Your task to perform on an android device: Search for razer blackwidow on walmart.com, select the first entry, add it to the cart, then select checkout. Image 0: 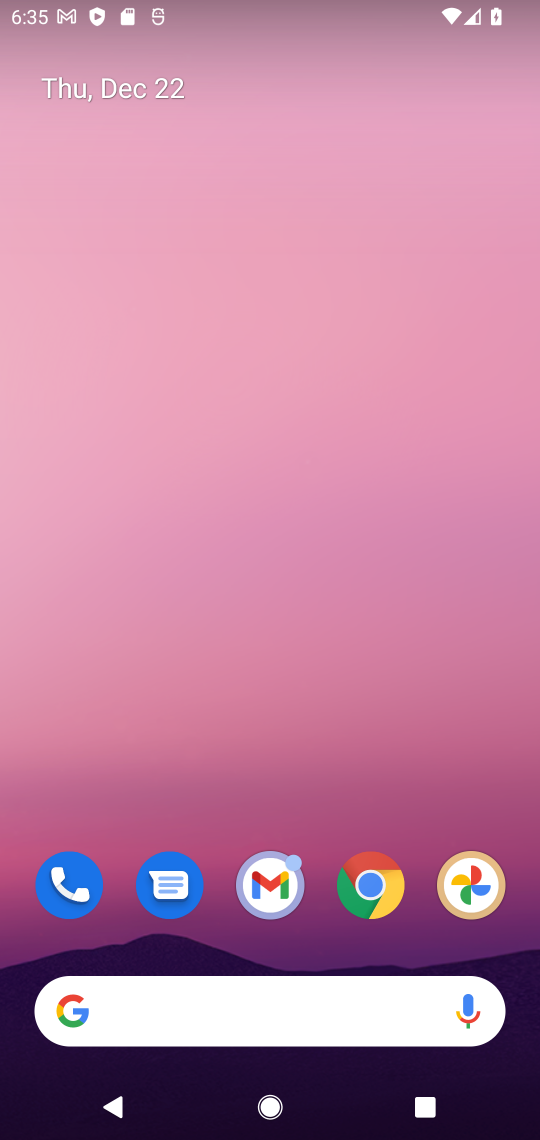
Step 0: click (371, 891)
Your task to perform on an android device: Search for razer blackwidow on walmart.com, select the first entry, add it to the cart, then select checkout. Image 1: 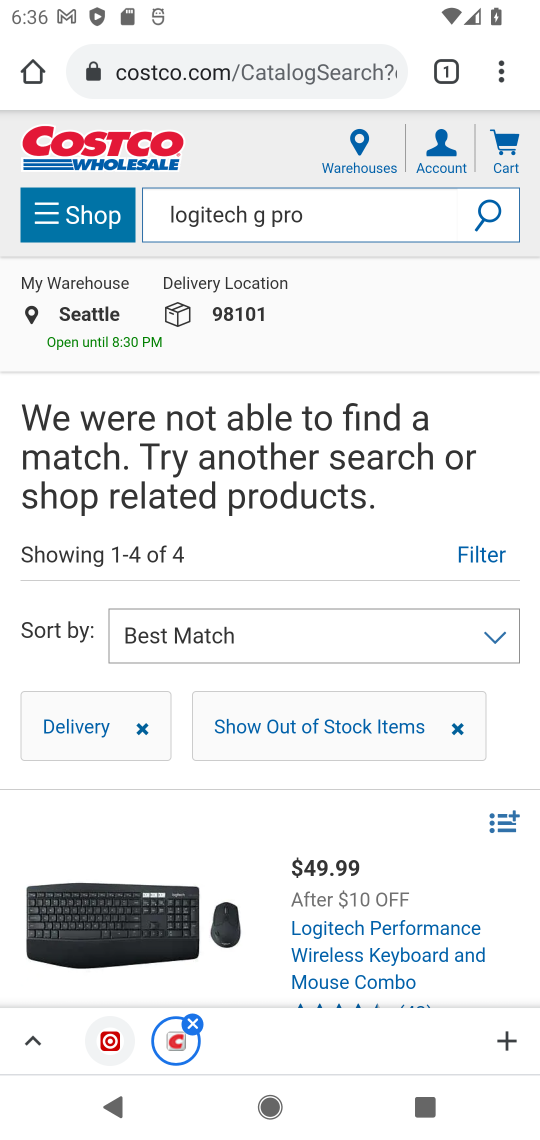
Step 1: click (188, 74)
Your task to perform on an android device: Search for razer blackwidow on walmart.com, select the first entry, add it to the cart, then select checkout. Image 2: 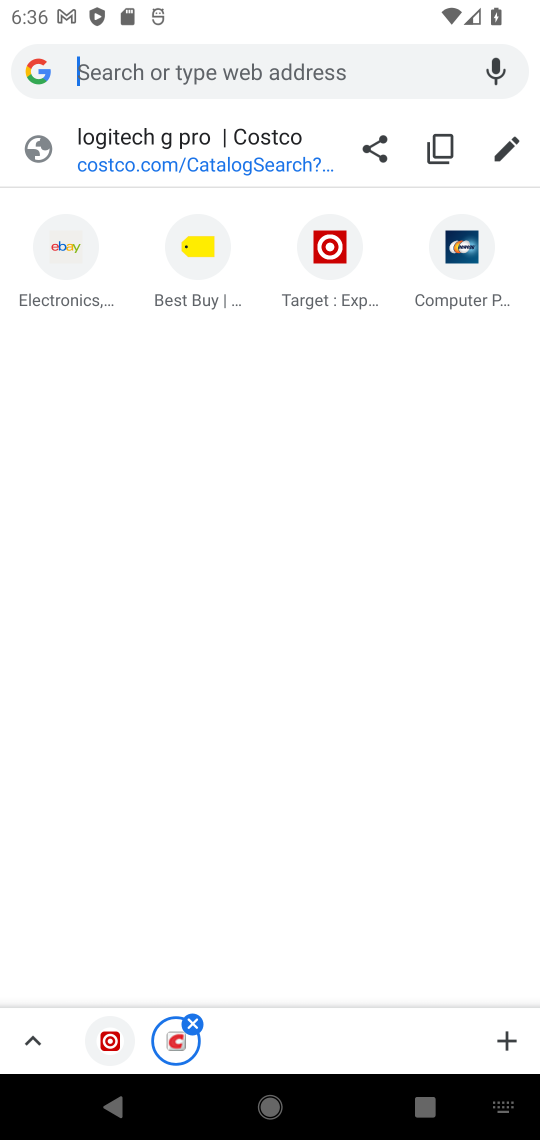
Step 2: type "walmart.com"
Your task to perform on an android device: Search for razer blackwidow on walmart.com, select the first entry, add it to the cart, then select checkout. Image 3: 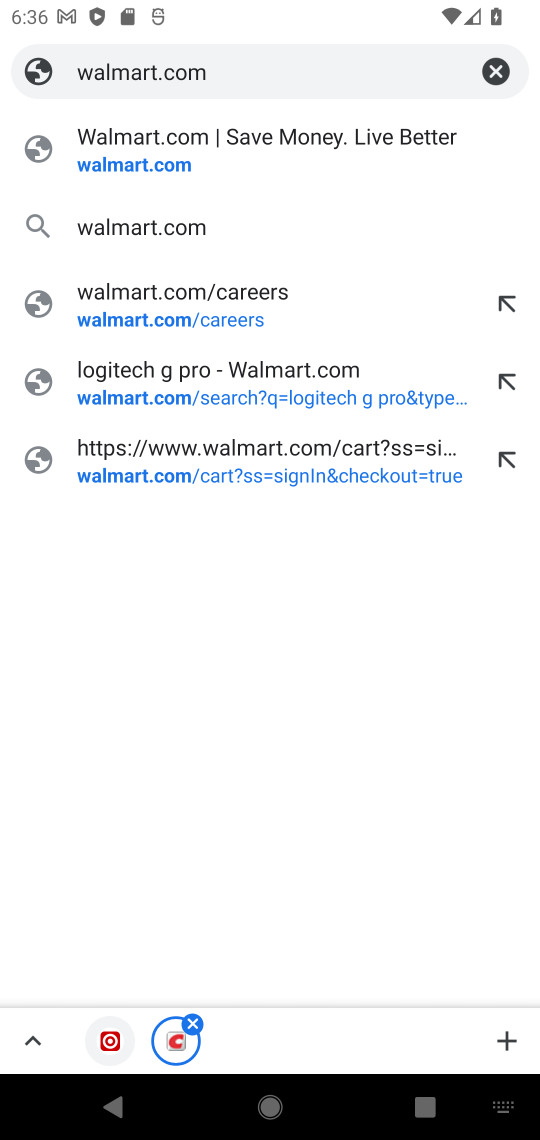
Step 3: click (150, 155)
Your task to perform on an android device: Search for razer blackwidow on walmart.com, select the first entry, add it to the cart, then select checkout. Image 4: 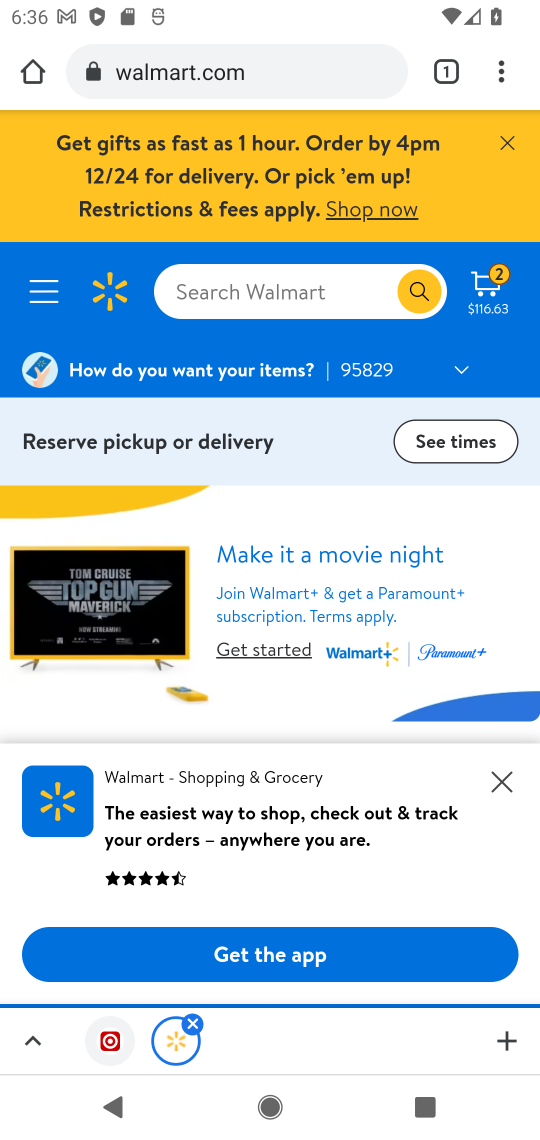
Step 4: click (228, 303)
Your task to perform on an android device: Search for razer blackwidow on walmart.com, select the first entry, add it to the cart, then select checkout. Image 5: 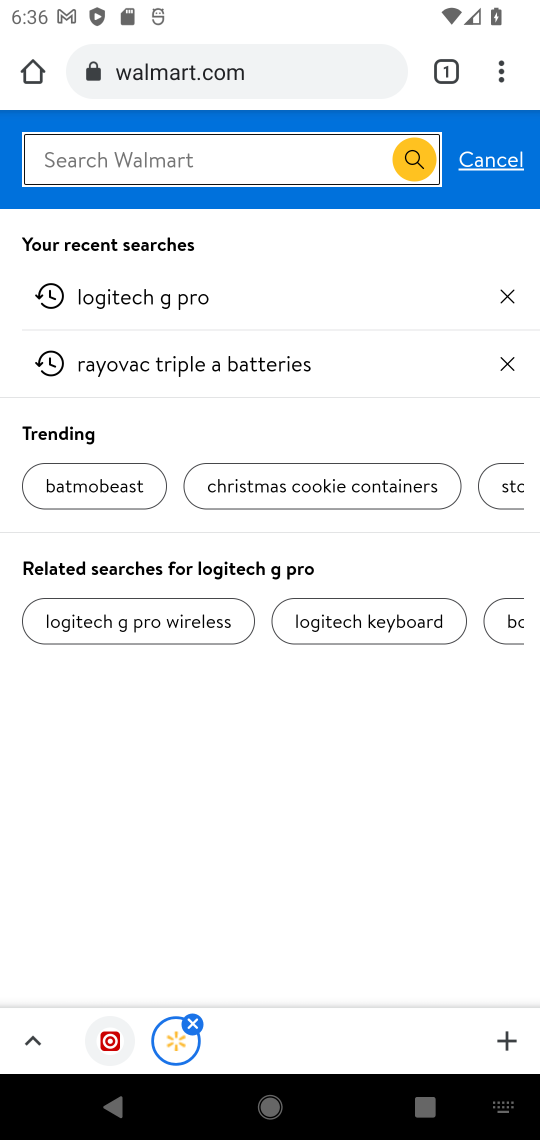
Step 5: type "razer blackwidow"
Your task to perform on an android device: Search for razer blackwidow on walmart.com, select the first entry, add it to the cart, then select checkout. Image 6: 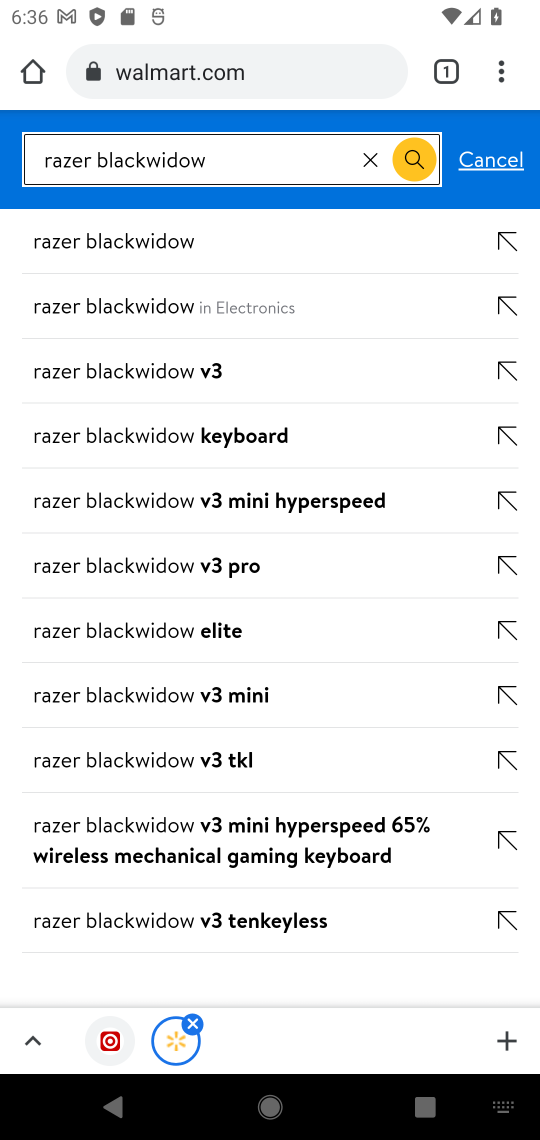
Step 6: click (140, 248)
Your task to perform on an android device: Search for razer blackwidow on walmart.com, select the first entry, add it to the cart, then select checkout. Image 7: 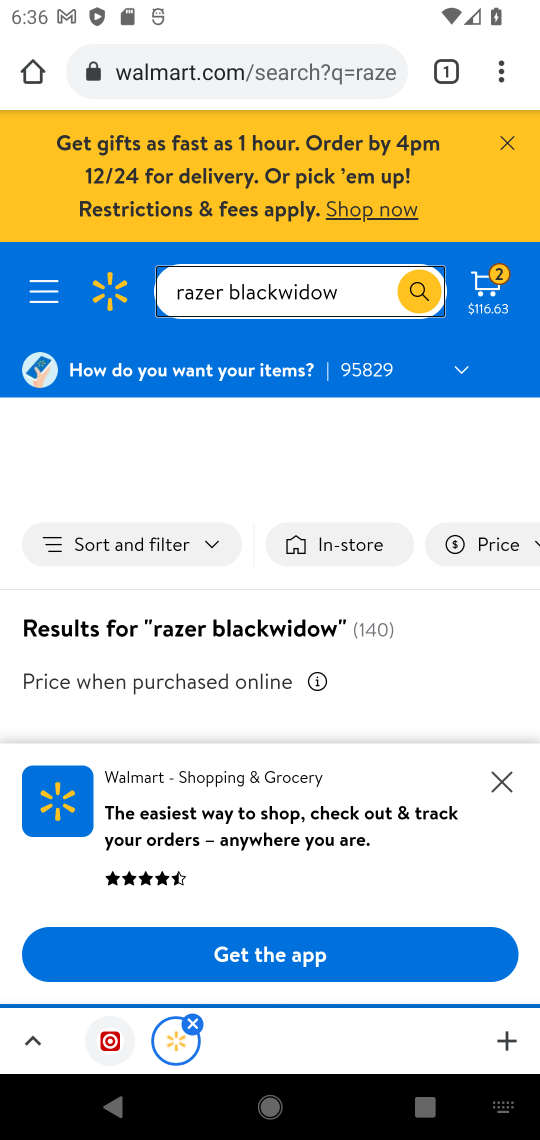
Step 7: click (495, 783)
Your task to perform on an android device: Search for razer blackwidow on walmart.com, select the first entry, add it to the cart, then select checkout. Image 8: 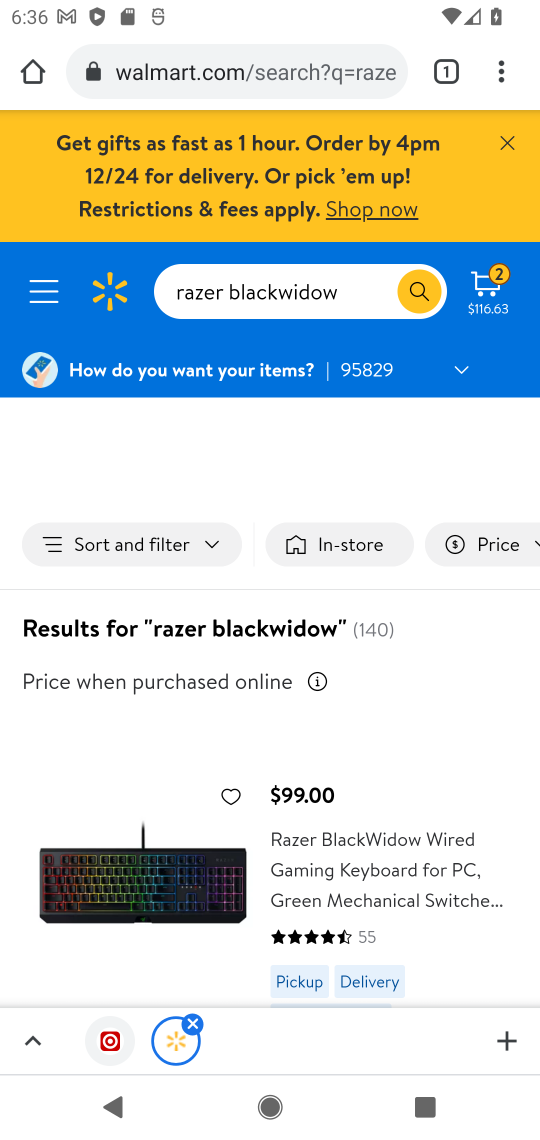
Step 8: drag from (193, 738) to (200, 411)
Your task to perform on an android device: Search for razer blackwidow on walmart.com, select the first entry, add it to the cart, then select checkout. Image 9: 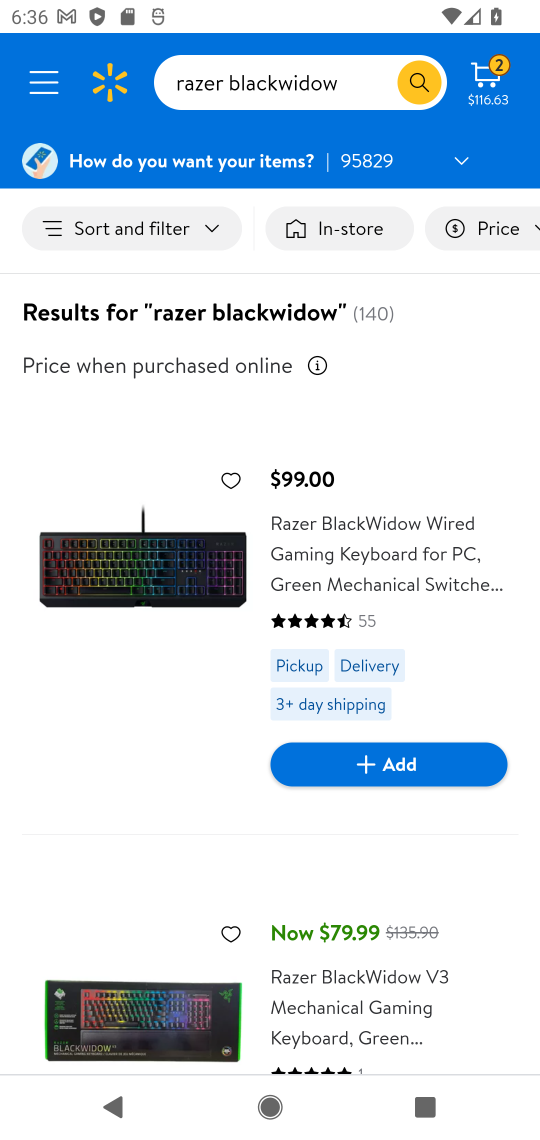
Step 9: click (374, 770)
Your task to perform on an android device: Search for razer blackwidow on walmart.com, select the first entry, add it to the cart, then select checkout. Image 10: 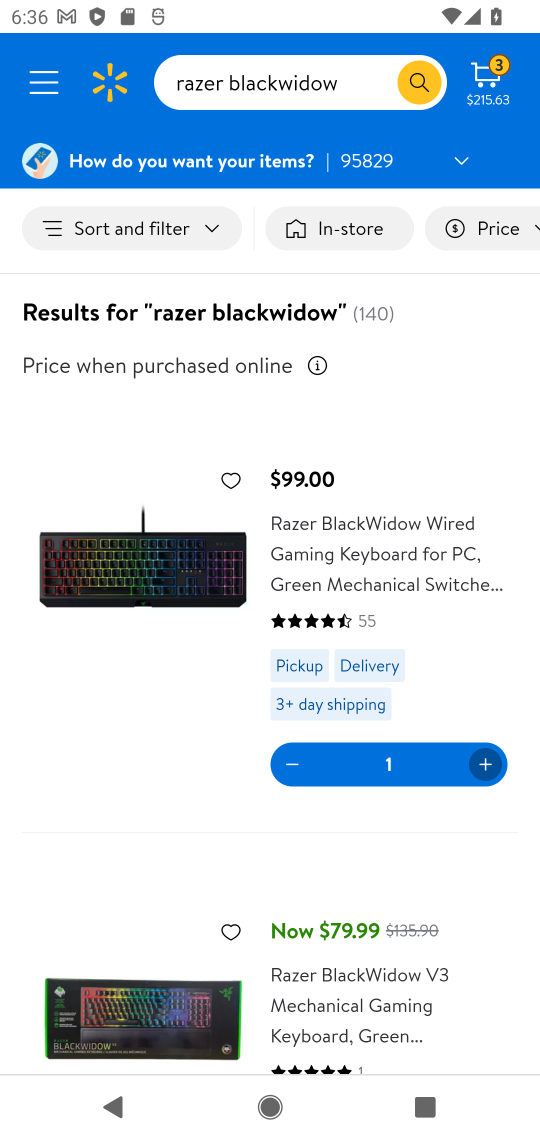
Step 10: click (495, 87)
Your task to perform on an android device: Search for razer blackwidow on walmart.com, select the first entry, add it to the cart, then select checkout. Image 11: 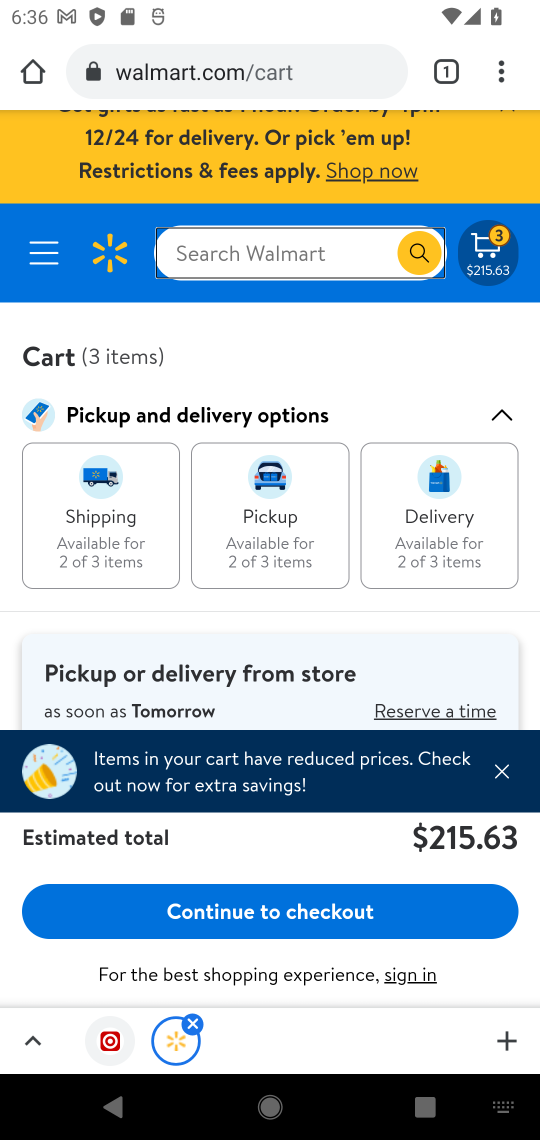
Step 11: click (267, 916)
Your task to perform on an android device: Search for razer blackwidow on walmart.com, select the first entry, add it to the cart, then select checkout. Image 12: 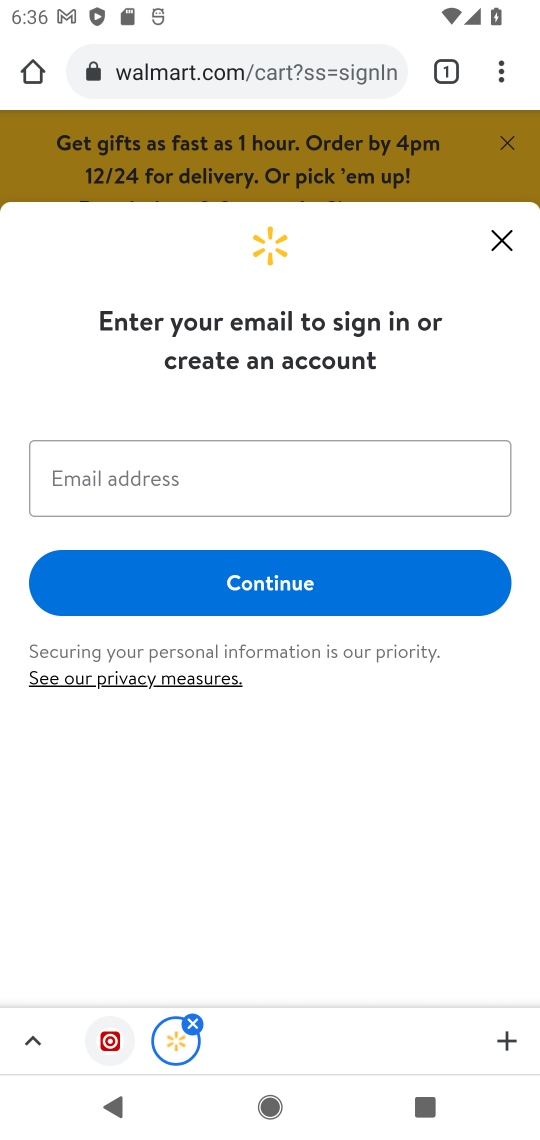
Step 12: task complete